Your task to perform on an android device: Is it going to rain this weekend? Image 0: 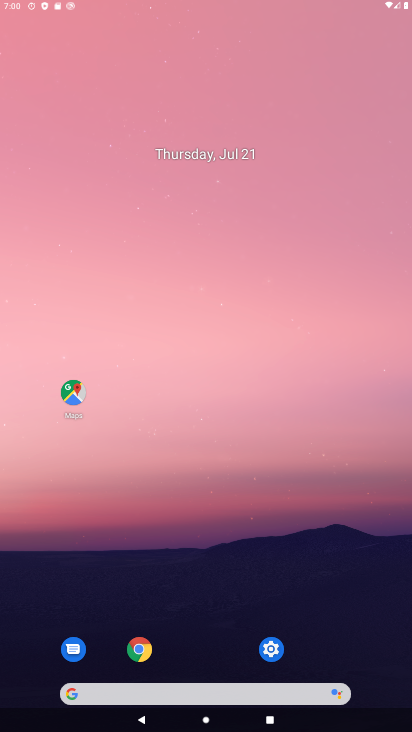
Step 0: press home button
Your task to perform on an android device: Is it going to rain this weekend? Image 1: 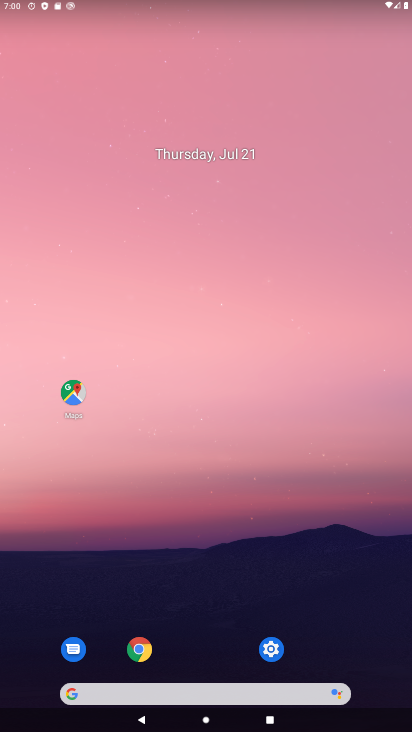
Step 1: drag from (239, 717) to (222, 208)
Your task to perform on an android device: Is it going to rain this weekend? Image 2: 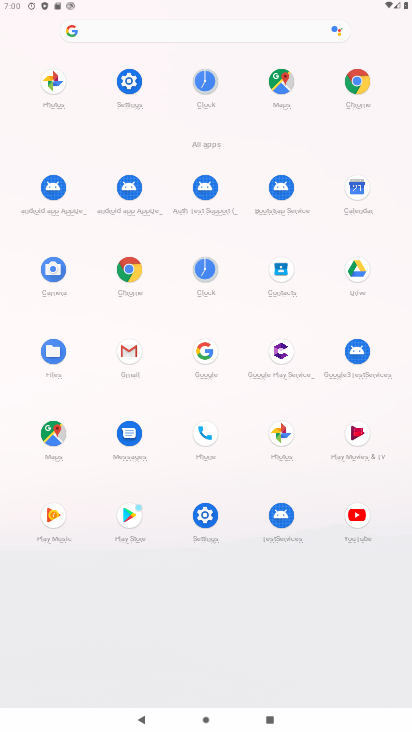
Step 2: click (128, 31)
Your task to perform on an android device: Is it going to rain this weekend? Image 3: 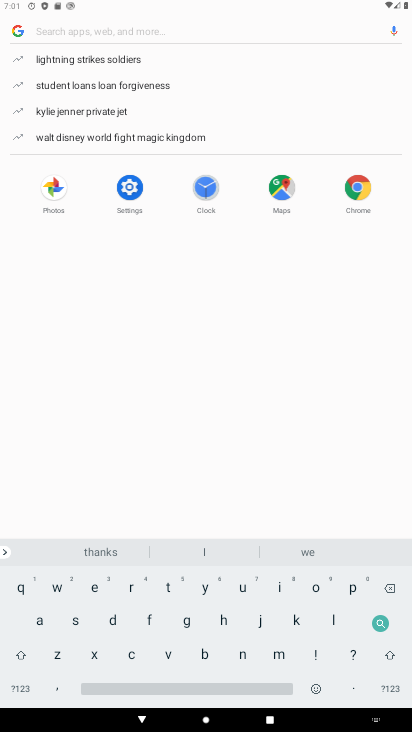
Step 3: click (279, 586)
Your task to perform on an android device: Is it going to rain this weekend? Image 4: 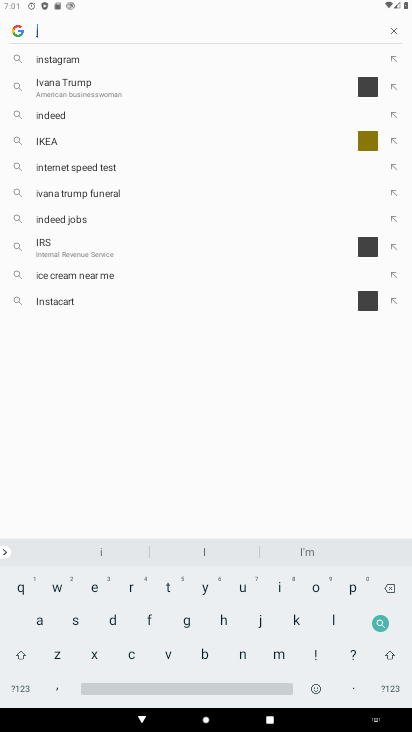
Step 4: click (75, 620)
Your task to perform on an android device: Is it going to rain this weekend? Image 5: 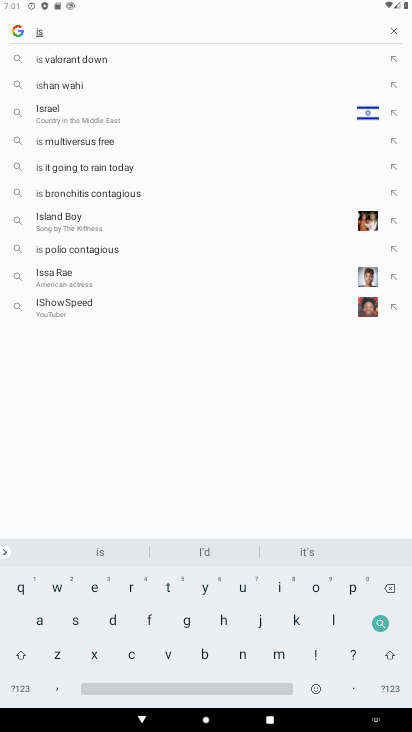
Step 5: click (171, 687)
Your task to perform on an android device: Is it going to rain this weekend? Image 6: 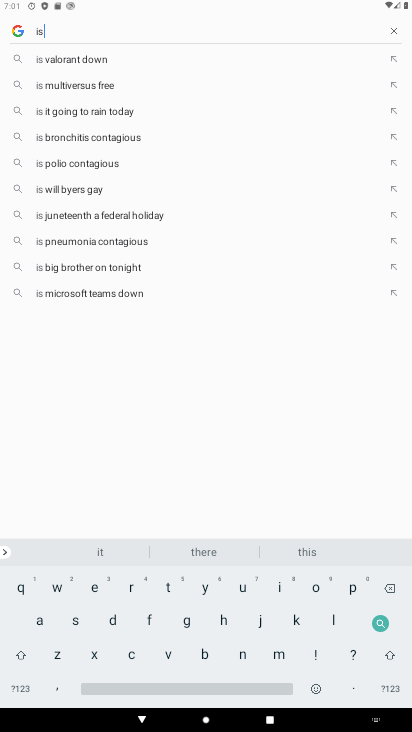
Step 6: click (278, 585)
Your task to perform on an android device: Is it going to rain this weekend? Image 7: 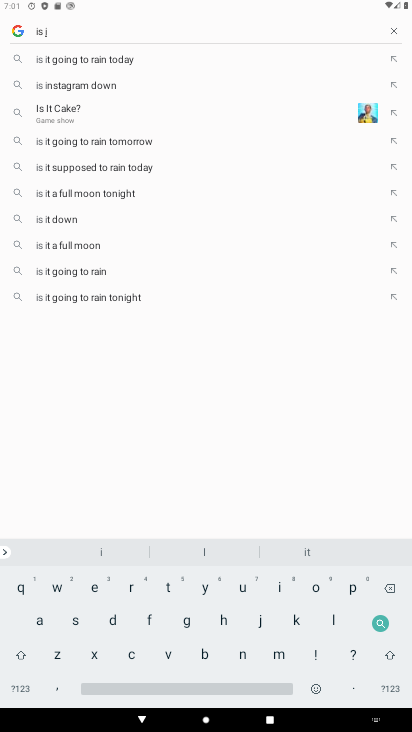
Step 7: click (174, 587)
Your task to perform on an android device: Is it going to rain this weekend? Image 8: 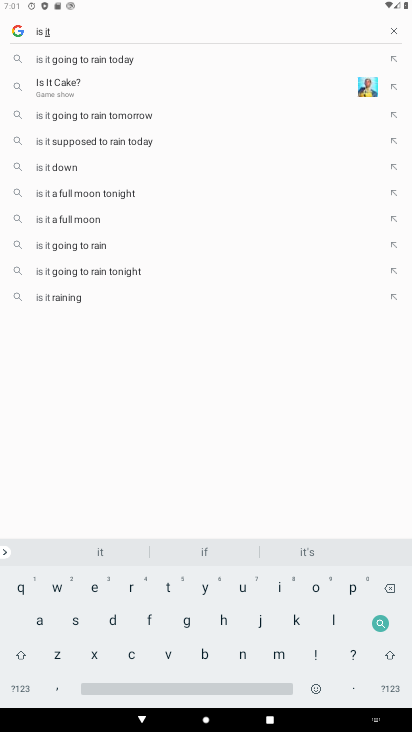
Step 8: click (162, 690)
Your task to perform on an android device: Is it going to rain this weekend? Image 9: 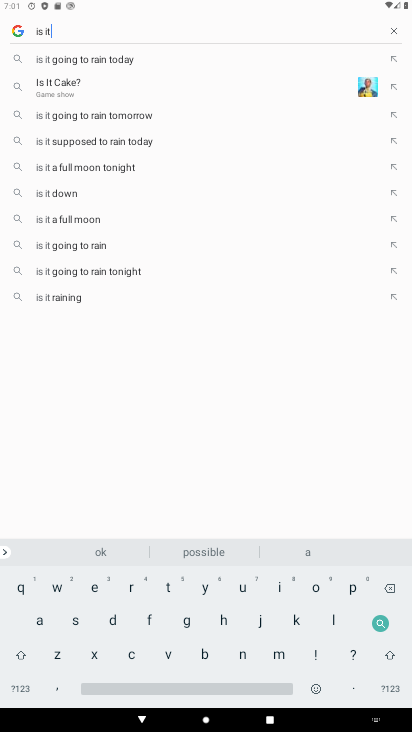
Step 9: click (184, 619)
Your task to perform on an android device: Is it going to rain this weekend? Image 10: 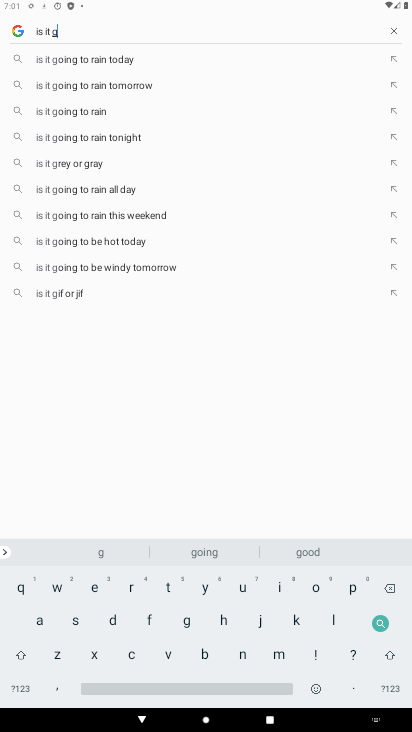
Step 10: click (143, 213)
Your task to perform on an android device: Is it going to rain this weekend? Image 11: 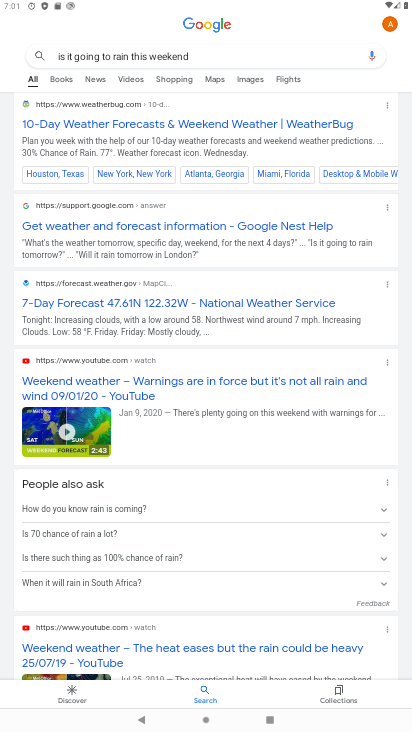
Step 11: task complete